Your task to perform on an android device: read, delete, or share a saved page in the chrome app Image 0: 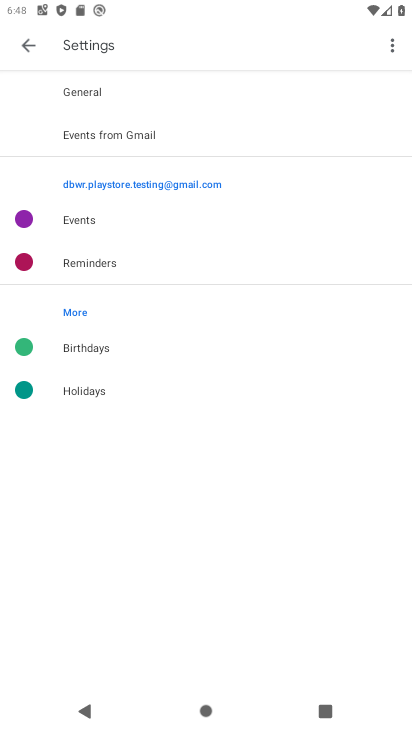
Step 0: press home button
Your task to perform on an android device: read, delete, or share a saved page in the chrome app Image 1: 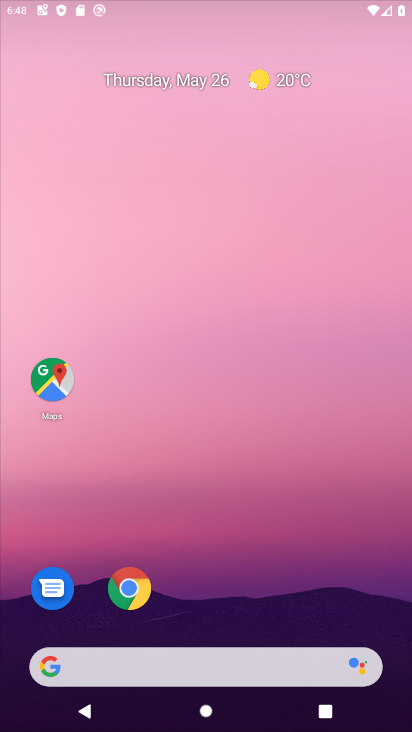
Step 1: drag from (368, 597) to (218, 5)
Your task to perform on an android device: read, delete, or share a saved page in the chrome app Image 2: 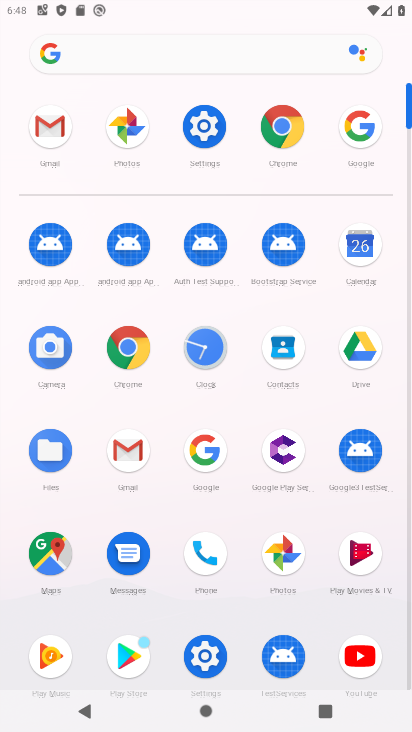
Step 2: click (136, 349)
Your task to perform on an android device: read, delete, or share a saved page in the chrome app Image 3: 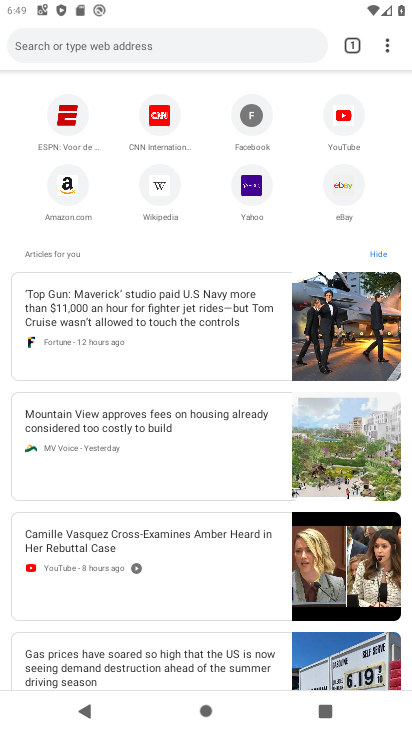
Step 3: task complete